Your task to perform on an android device: Open Wikipedia Image 0: 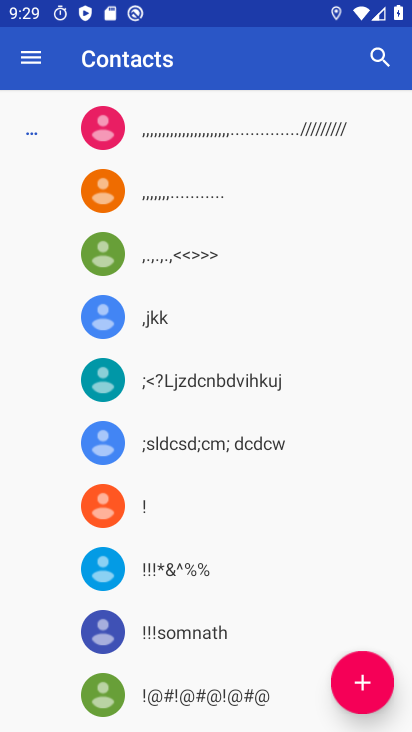
Step 0: press home button
Your task to perform on an android device: Open Wikipedia Image 1: 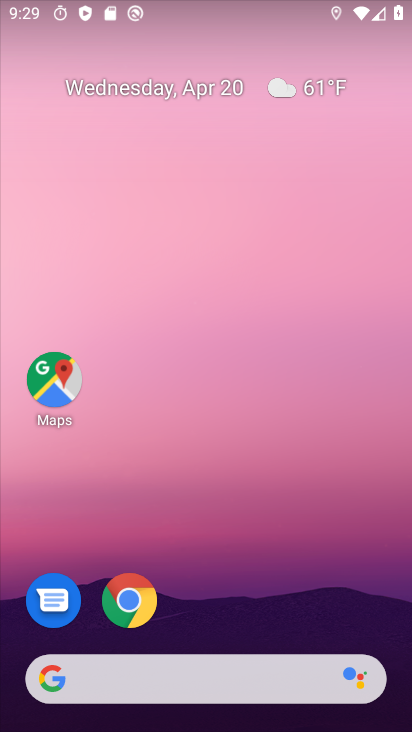
Step 1: click (132, 605)
Your task to perform on an android device: Open Wikipedia Image 2: 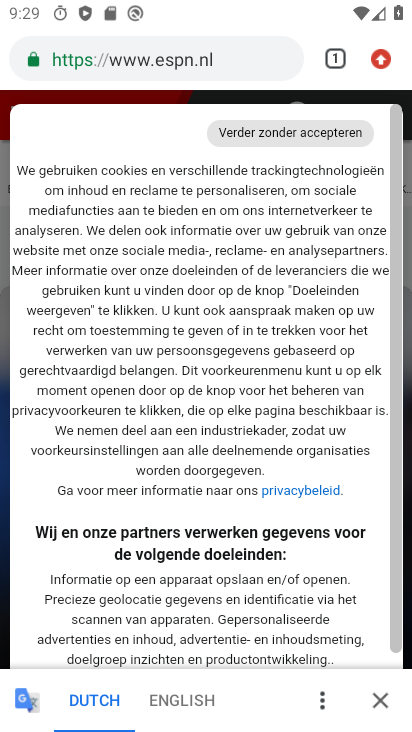
Step 2: click (222, 61)
Your task to perform on an android device: Open Wikipedia Image 3: 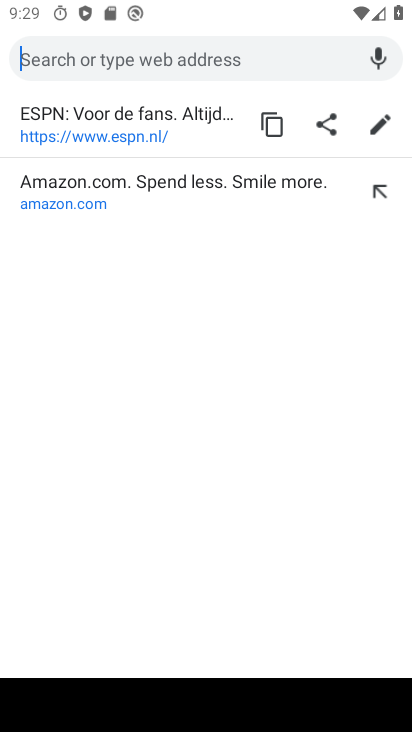
Step 3: type "wikipedia"
Your task to perform on an android device: Open Wikipedia Image 4: 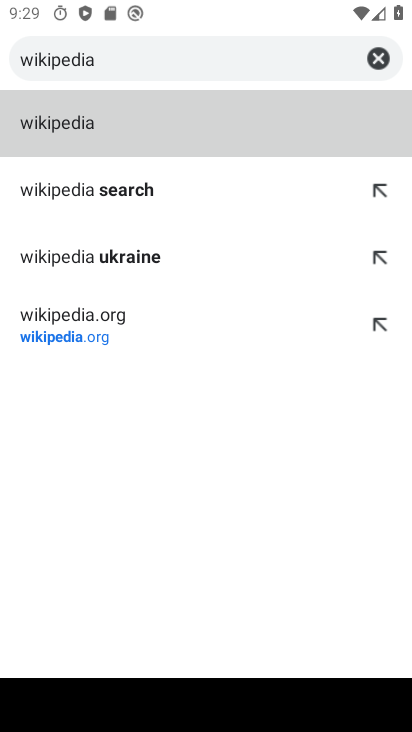
Step 4: click (72, 125)
Your task to perform on an android device: Open Wikipedia Image 5: 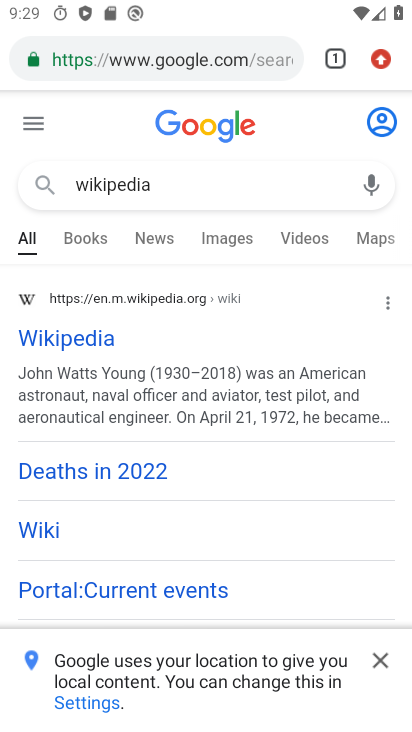
Step 5: click (67, 349)
Your task to perform on an android device: Open Wikipedia Image 6: 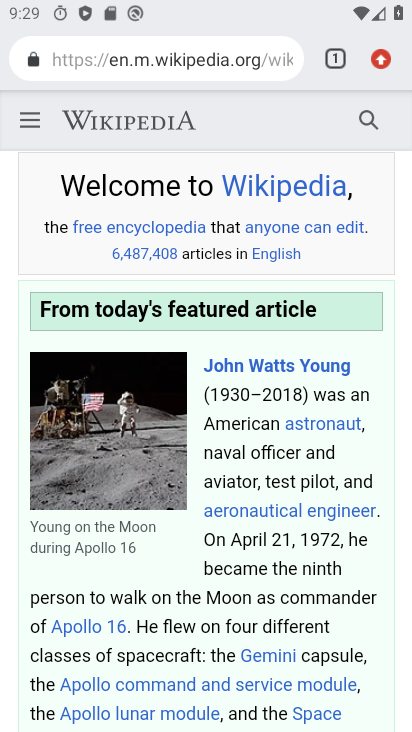
Step 6: task complete